Your task to perform on an android device: Turn on the flashlight Image 0: 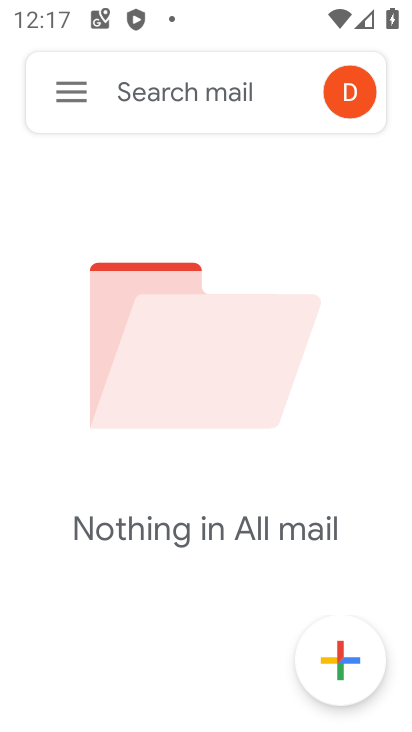
Step 0: drag from (211, 30) to (204, 608)
Your task to perform on an android device: Turn on the flashlight Image 1: 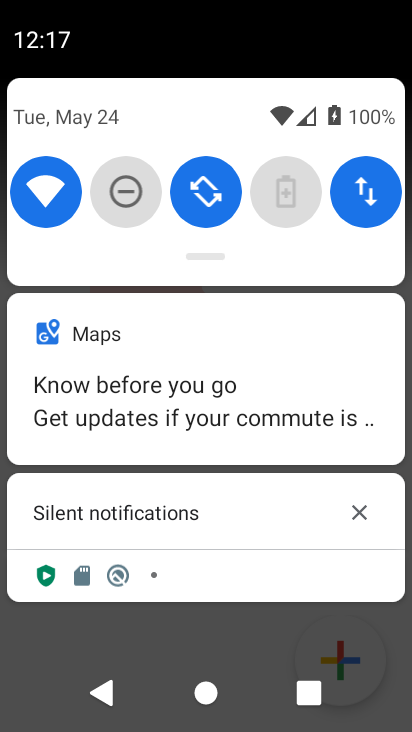
Step 1: drag from (276, 102) to (265, 630)
Your task to perform on an android device: Turn on the flashlight Image 2: 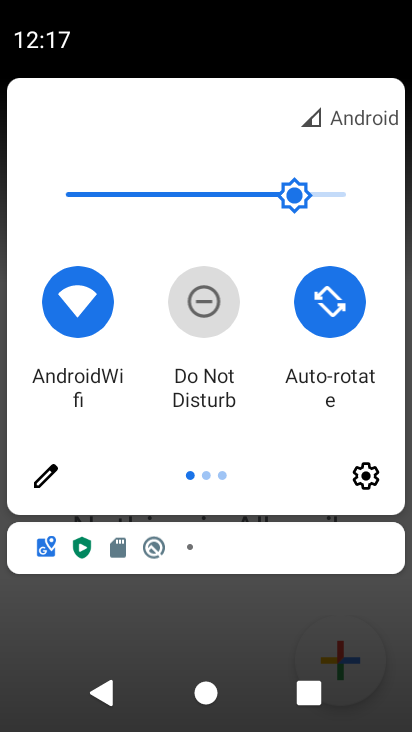
Step 2: click (351, 479)
Your task to perform on an android device: Turn on the flashlight Image 3: 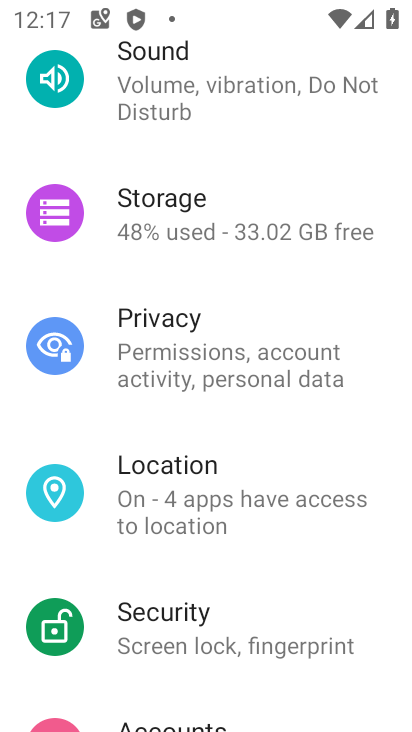
Step 3: task complete